Your task to perform on an android device: toggle show notifications on the lock screen Image 0: 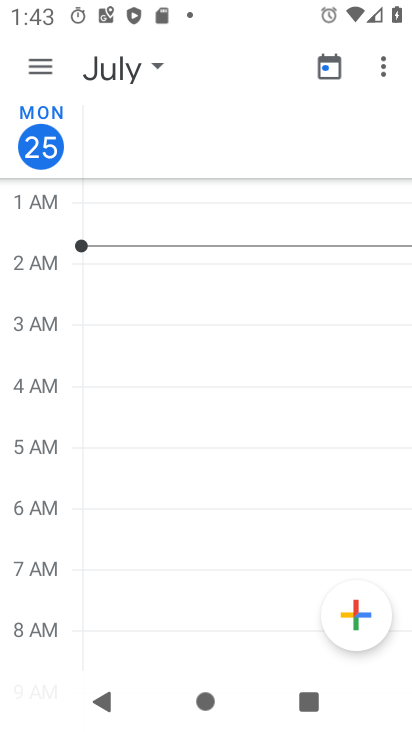
Step 0: press home button
Your task to perform on an android device: toggle show notifications on the lock screen Image 1: 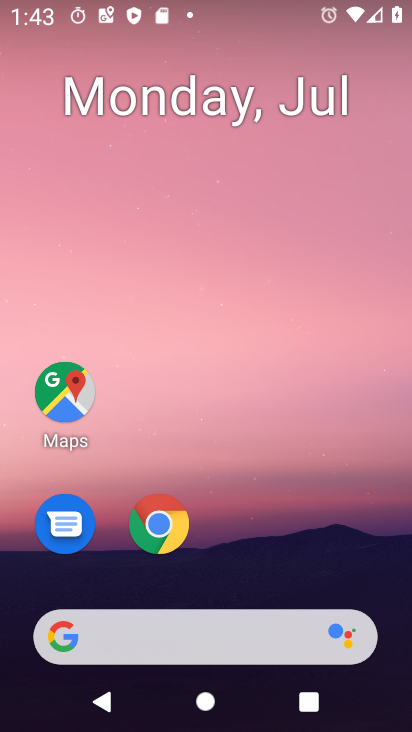
Step 1: press home button
Your task to perform on an android device: toggle show notifications on the lock screen Image 2: 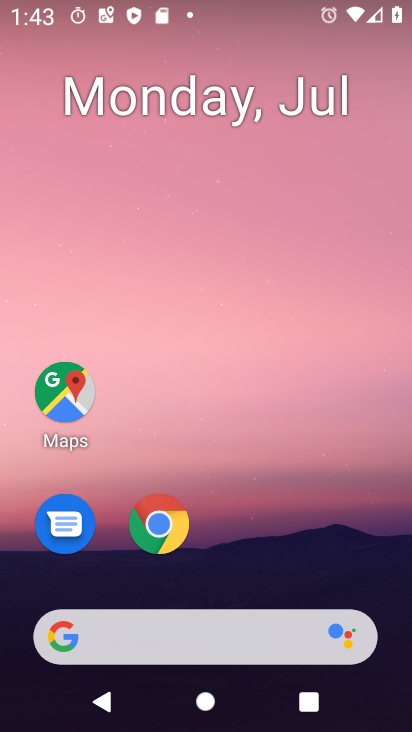
Step 2: drag from (289, 550) to (283, 140)
Your task to perform on an android device: toggle show notifications on the lock screen Image 3: 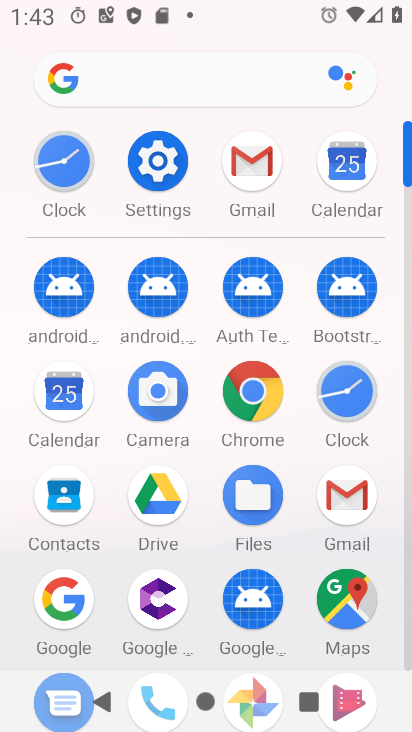
Step 3: click (174, 162)
Your task to perform on an android device: toggle show notifications on the lock screen Image 4: 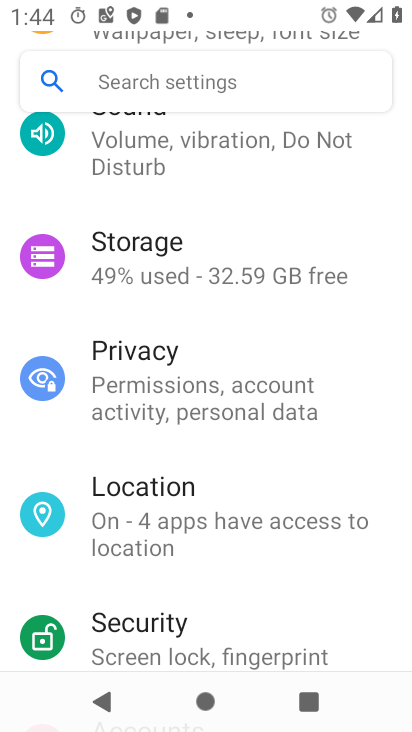
Step 4: drag from (169, 192) to (155, 269)
Your task to perform on an android device: toggle show notifications on the lock screen Image 5: 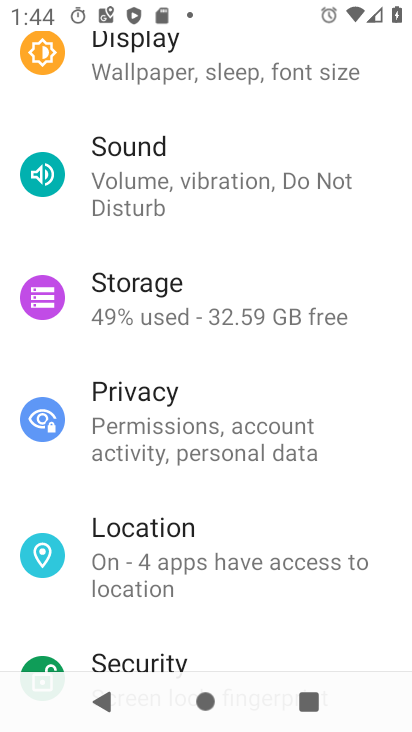
Step 5: drag from (217, 208) to (224, 620)
Your task to perform on an android device: toggle show notifications on the lock screen Image 6: 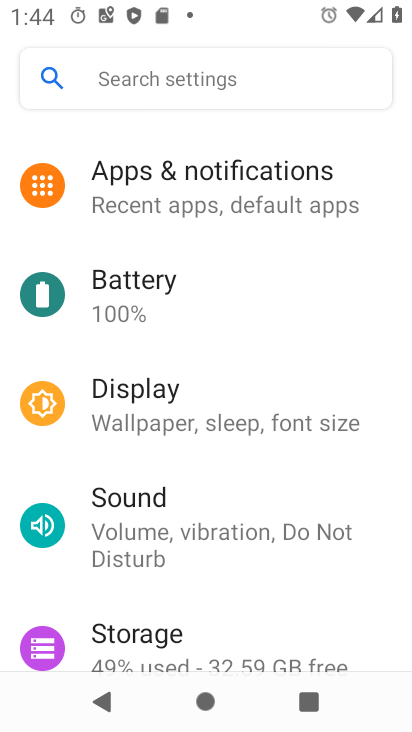
Step 6: click (187, 191)
Your task to perform on an android device: toggle show notifications on the lock screen Image 7: 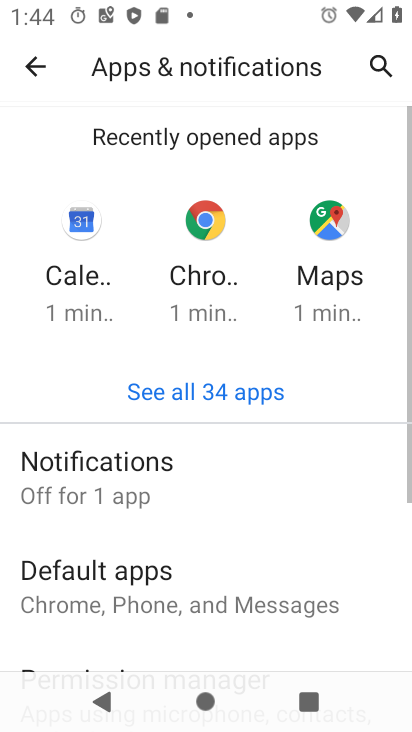
Step 7: click (124, 489)
Your task to perform on an android device: toggle show notifications on the lock screen Image 8: 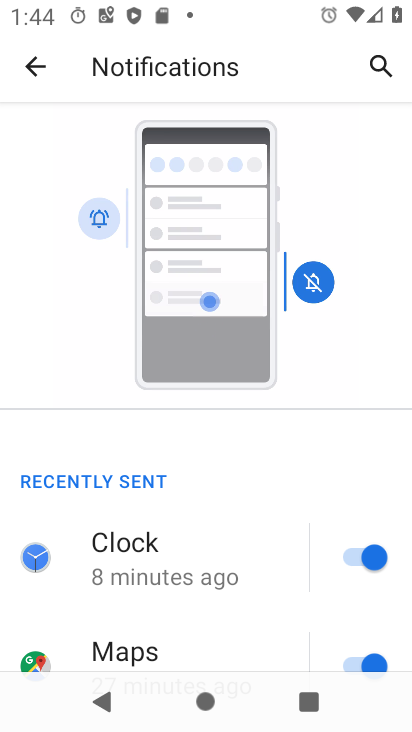
Step 8: drag from (207, 481) to (182, 56)
Your task to perform on an android device: toggle show notifications on the lock screen Image 9: 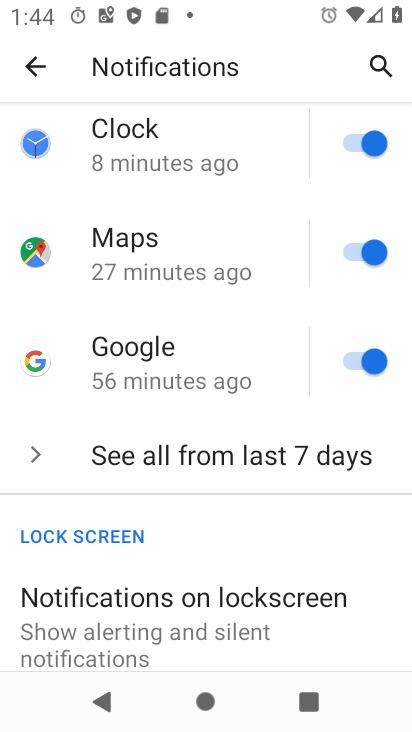
Step 9: click (157, 626)
Your task to perform on an android device: toggle show notifications on the lock screen Image 10: 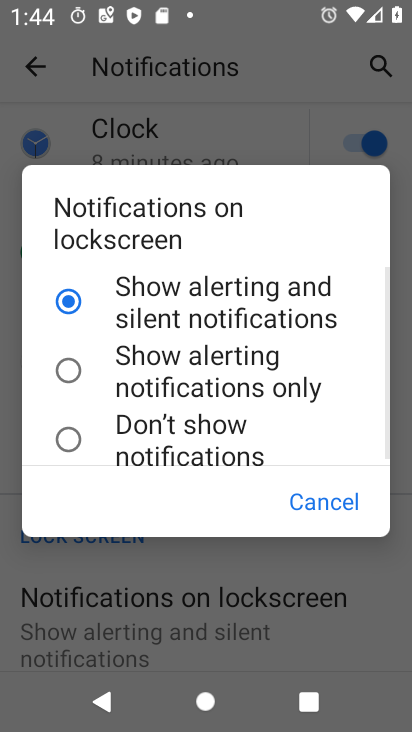
Step 10: click (70, 444)
Your task to perform on an android device: toggle show notifications on the lock screen Image 11: 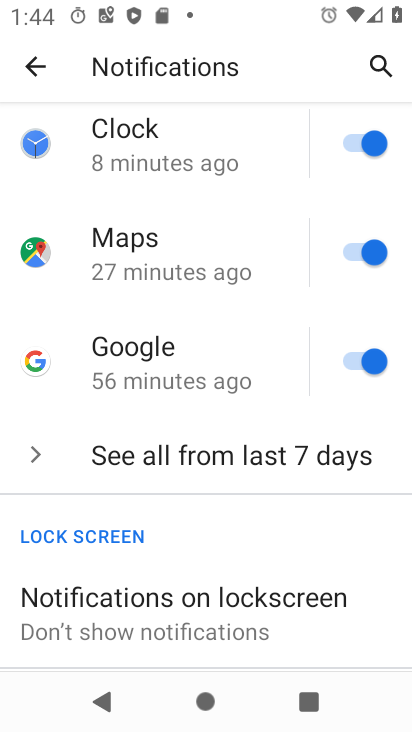
Step 11: task complete